Your task to perform on an android device: turn off data saver in the chrome app Image 0: 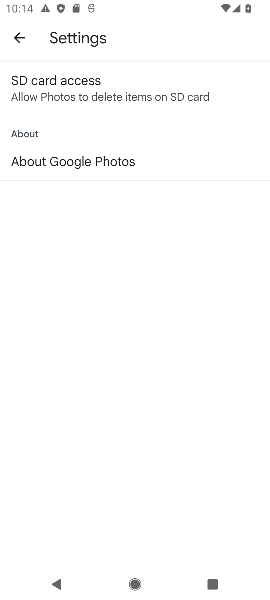
Step 0: press home button
Your task to perform on an android device: turn off data saver in the chrome app Image 1: 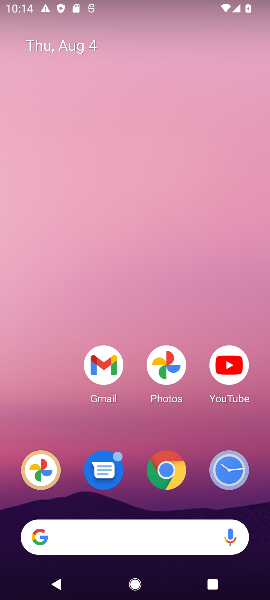
Step 1: click (165, 476)
Your task to perform on an android device: turn off data saver in the chrome app Image 2: 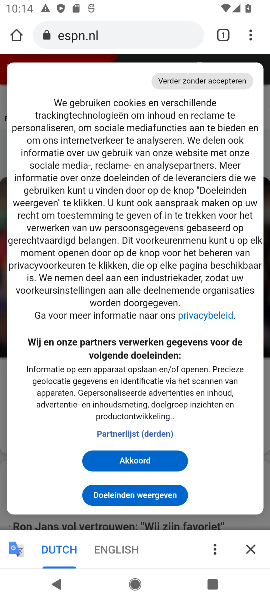
Step 2: click (254, 36)
Your task to perform on an android device: turn off data saver in the chrome app Image 3: 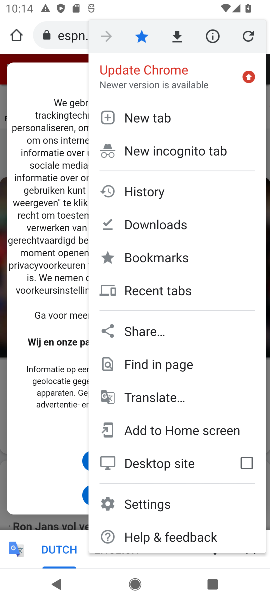
Step 3: click (155, 510)
Your task to perform on an android device: turn off data saver in the chrome app Image 4: 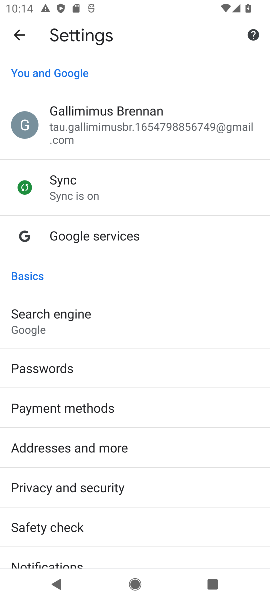
Step 4: drag from (85, 528) to (138, 282)
Your task to perform on an android device: turn off data saver in the chrome app Image 5: 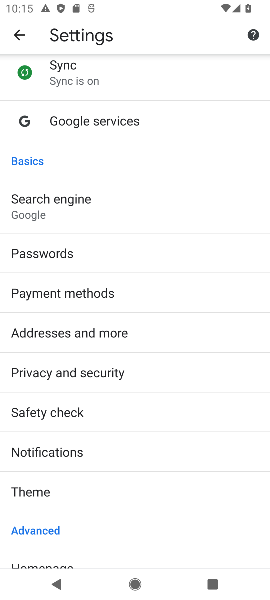
Step 5: drag from (123, 540) to (83, 101)
Your task to perform on an android device: turn off data saver in the chrome app Image 6: 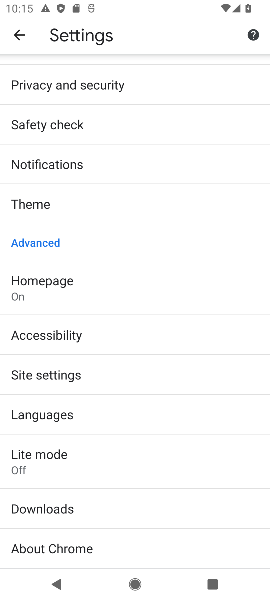
Step 6: click (72, 465)
Your task to perform on an android device: turn off data saver in the chrome app Image 7: 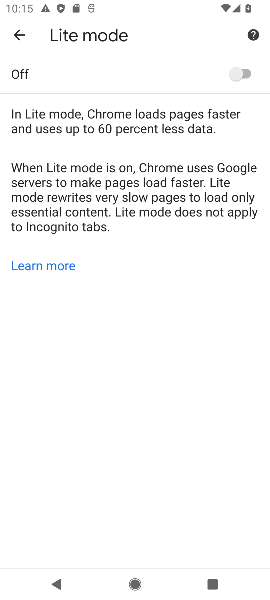
Step 7: task complete